Your task to perform on an android device: Search for cool wooden wall art on Etsy. Image 0: 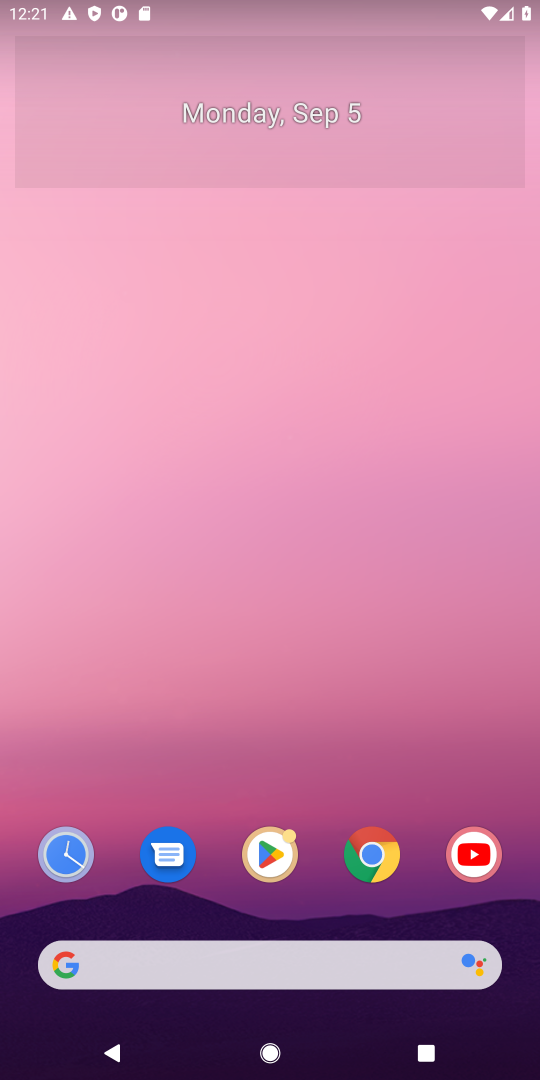
Step 0: click (333, 958)
Your task to perform on an android device: Search for cool wooden wall art on Etsy. Image 1: 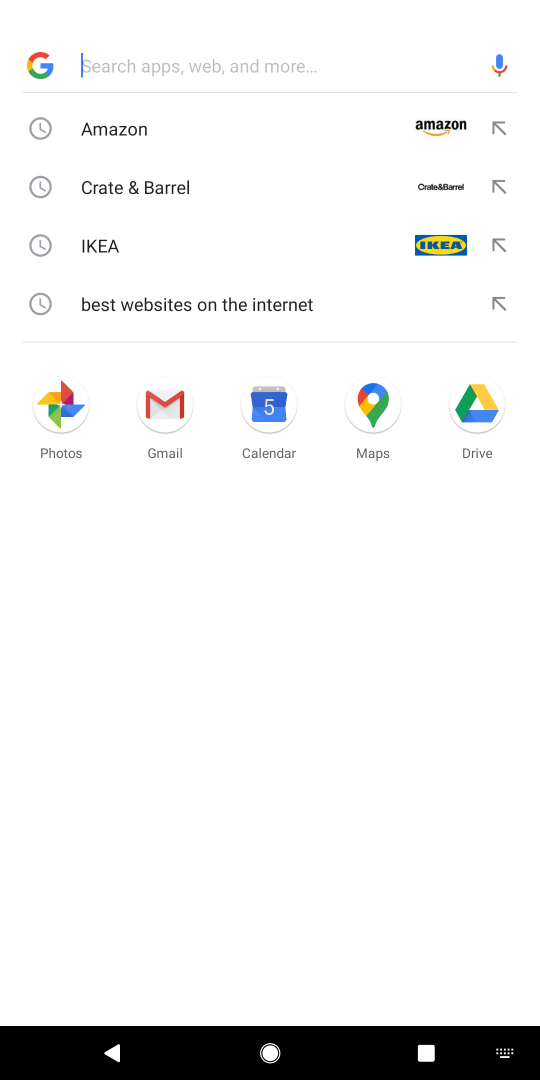
Step 1: type "etsy"
Your task to perform on an android device: Search for cool wooden wall art on Etsy. Image 2: 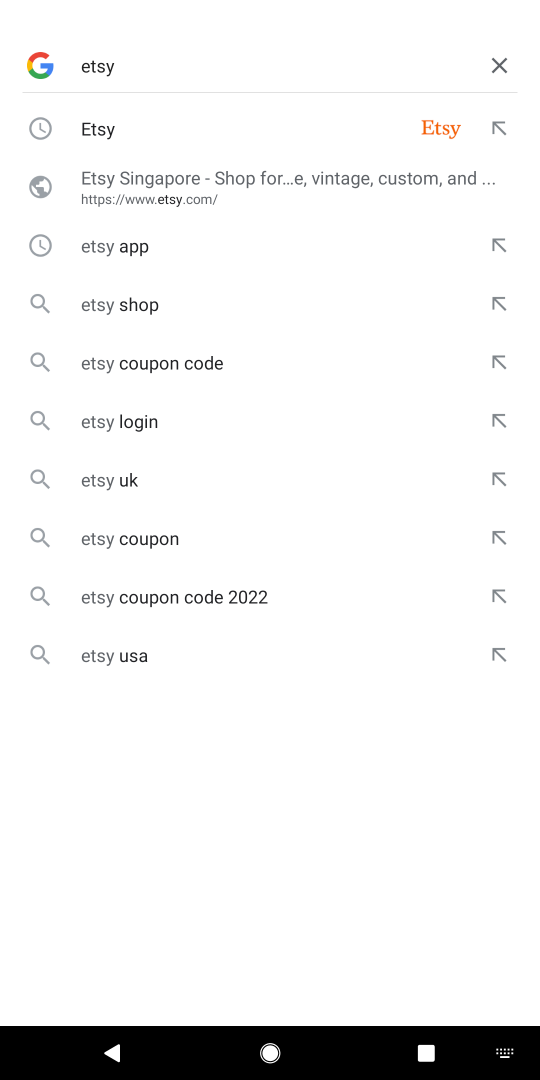
Step 2: press enter
Your task to perform on an android device: Search for cool wooden wall art on Etsy. Image 3: 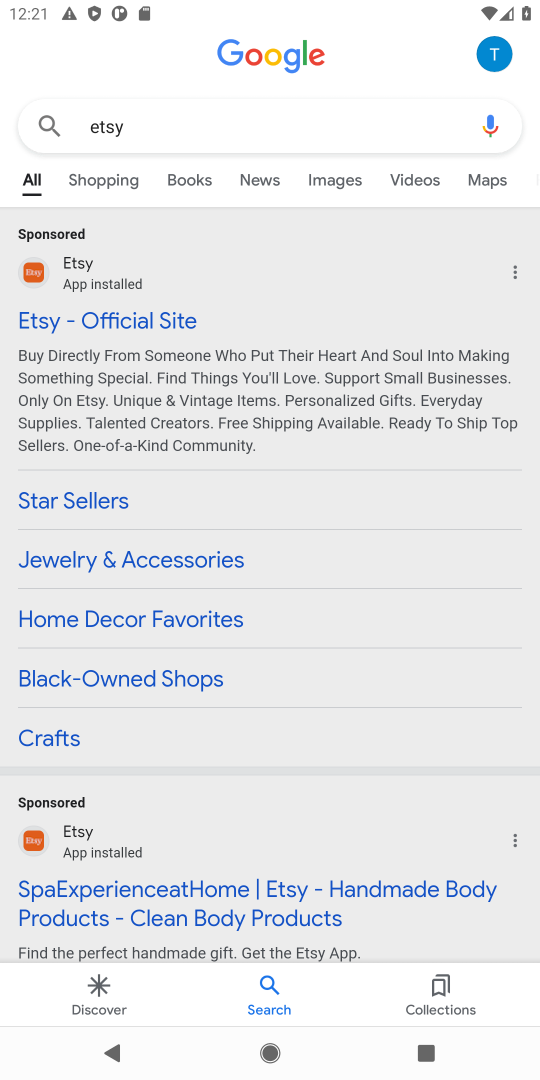
Step 3: click (157, 307)
Your task to perform on an android device: Search for cool wooden wall art on Etsy. Image 4: 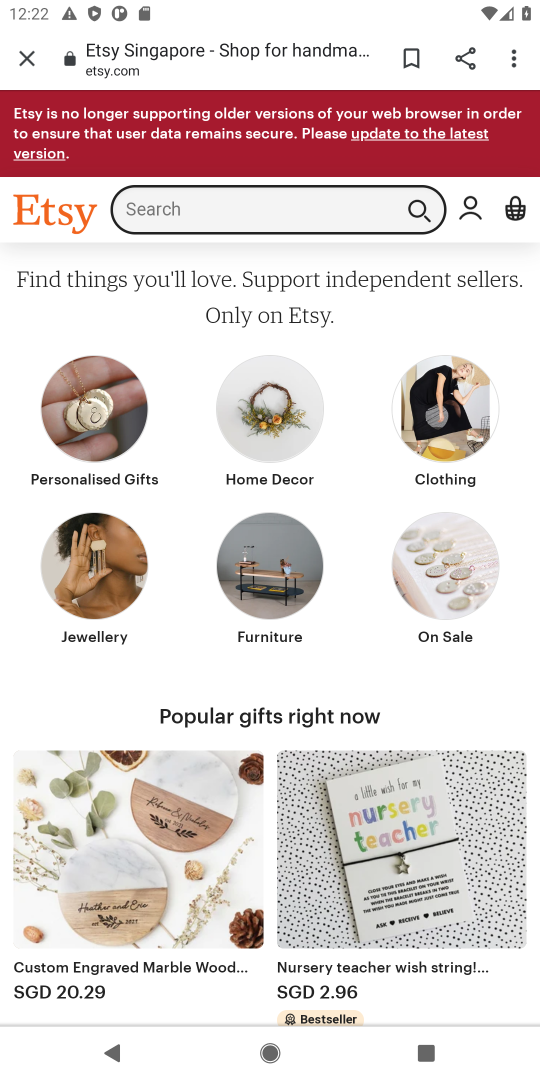
Step 4: click (251, 207)
Your task to perform on an android device: Search for cool wooden wall art on Etsy. Image 5: 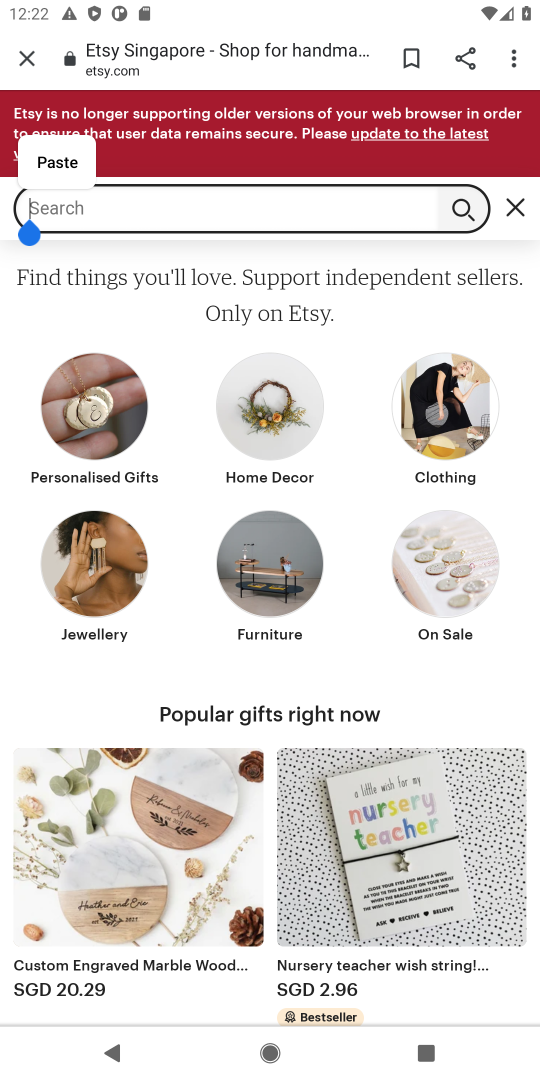
Step 5: type "cool wooden wall art"
Your task to perform on an android device: Search for cool wooden wall art on Etsy. Image 6: 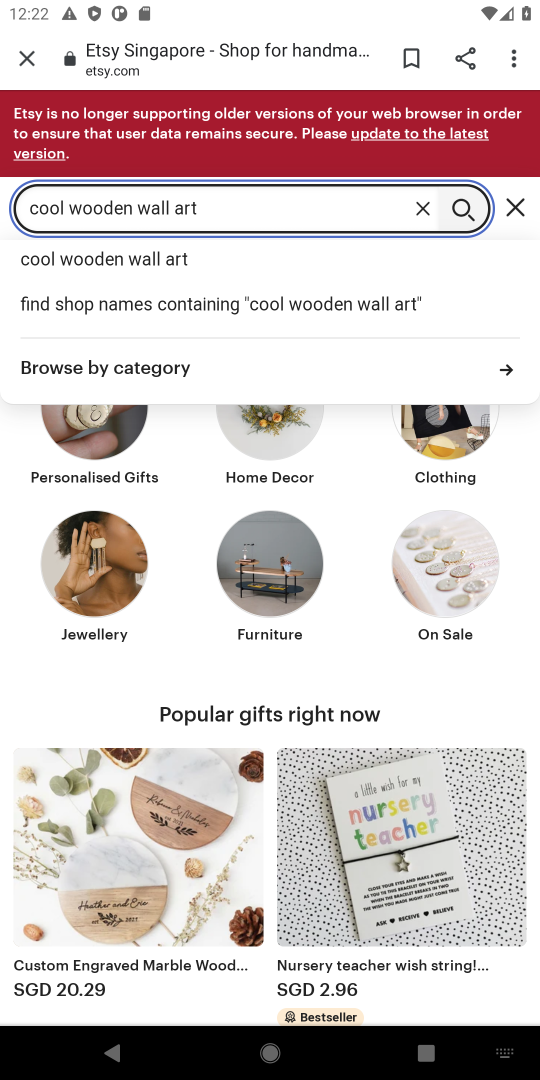
Step 6: click (133, 259)
Your task to perform on an android device: Search for cool wooden wall art on Etsy. Image 7: 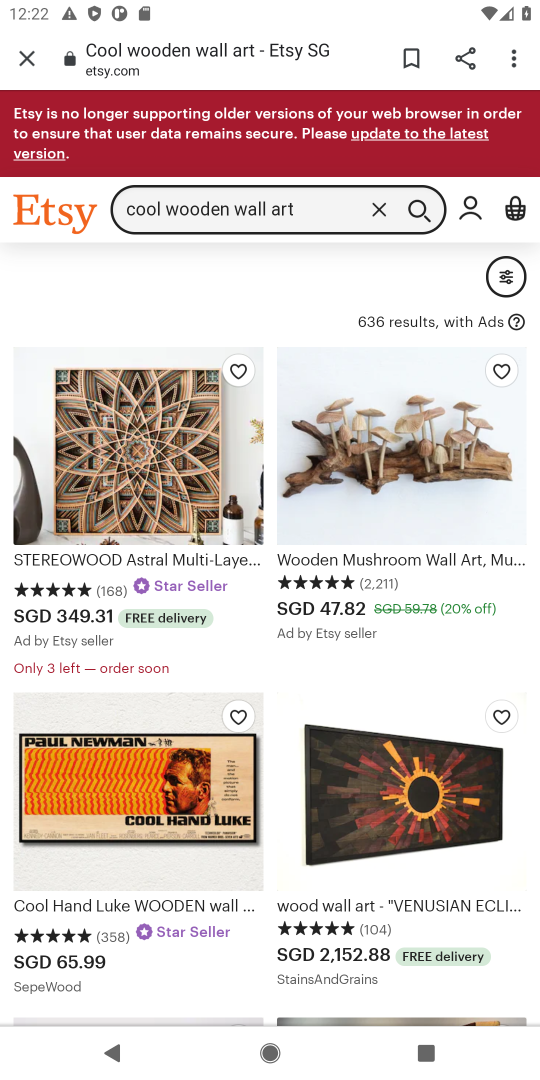
Step 7: task complete